Your task to perform on an android device: turn vacation reply on in the gmail app Image 0: 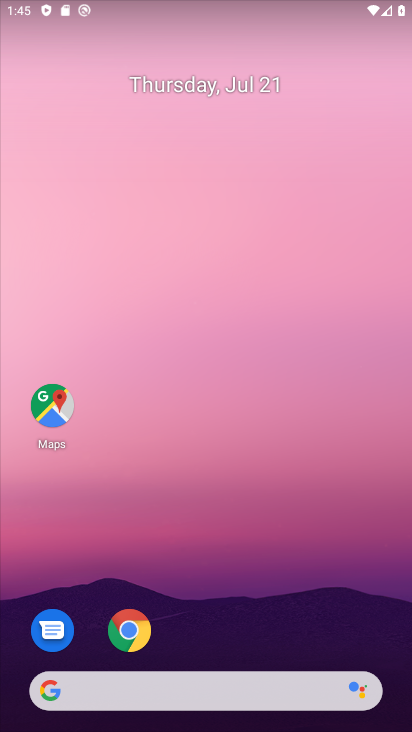
Step 0: drag from (198, 638) to (233, 176)
Your task to perform on an android device: turn vacation reply on in the gmail app Image 1: 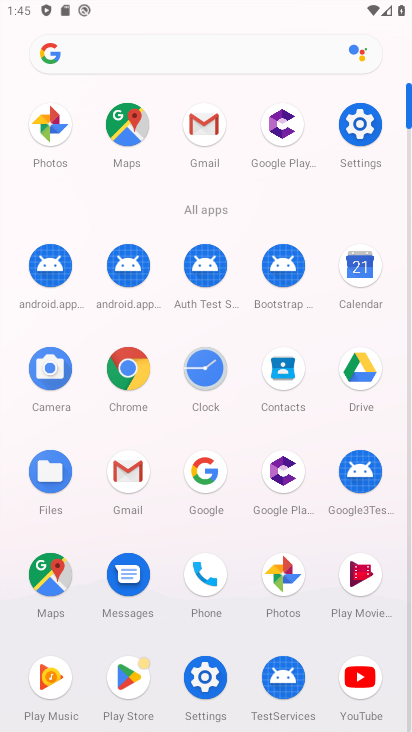
Step 1: click (364, 129)
Your task to perform on an android device: turn vacation reply on in the gmail app Image 2: 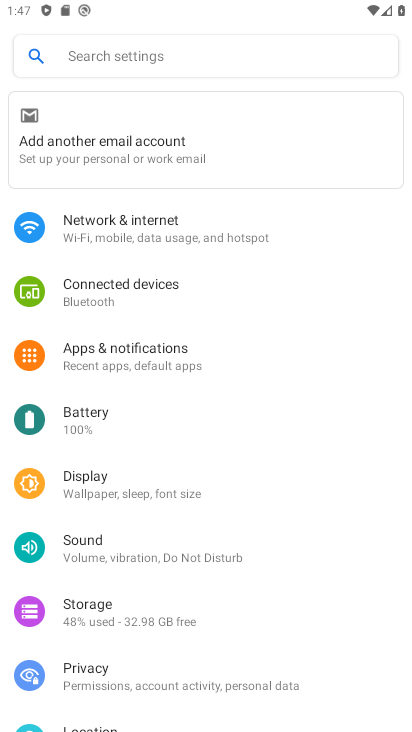
Step 2: task complete